Your task to perform on an android device: set default search engine in the chrome app Image 0: 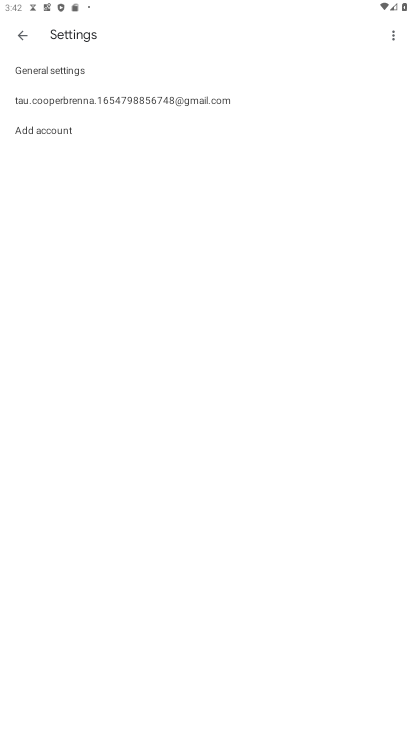
Step 0: press home button
Your task to perform on an android device: set default search engine in the chrome app Image 1: 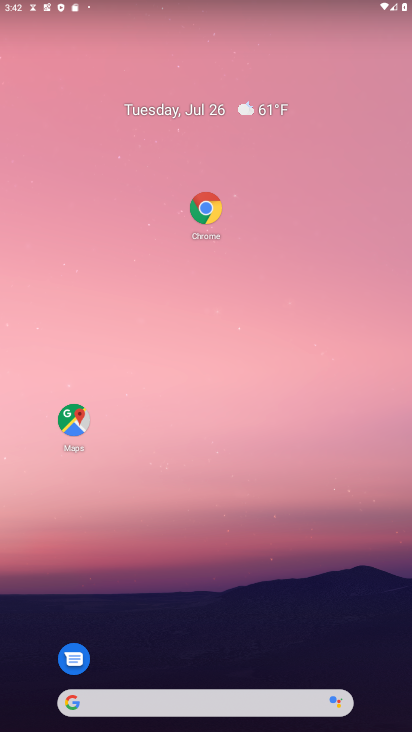
Step 1: click (196, 217)
Your task to perform on an android device: set default search engine in the chrome app Image 2: 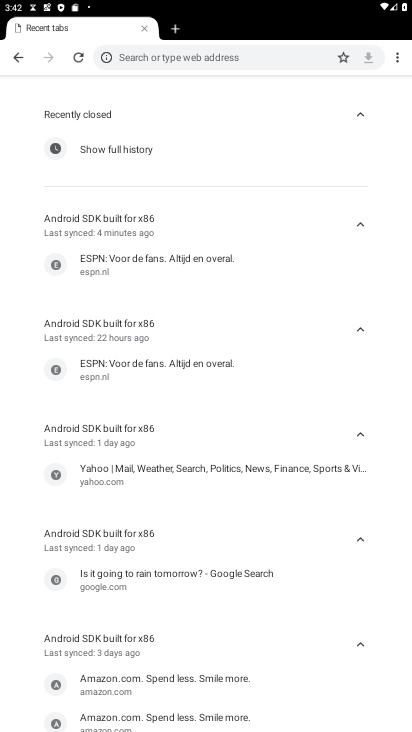
Step 2: click (395, 54)
Your task to perform on an android device: set default search engine in the chrome app Image 3: 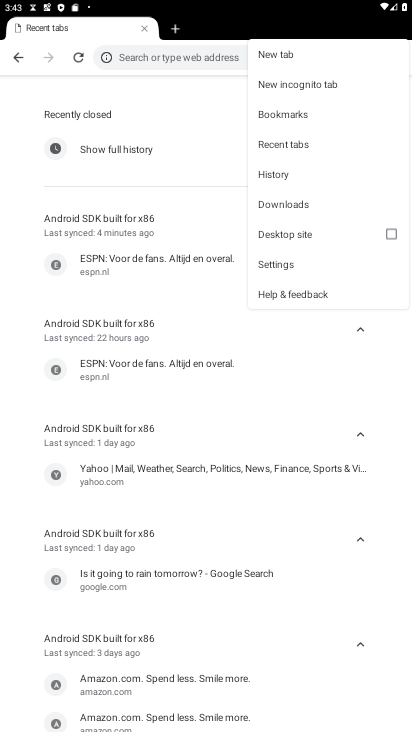
Step 3: click (283, 267)
Your task to perform on an android device: set default search engine in the chrome app Image 4: 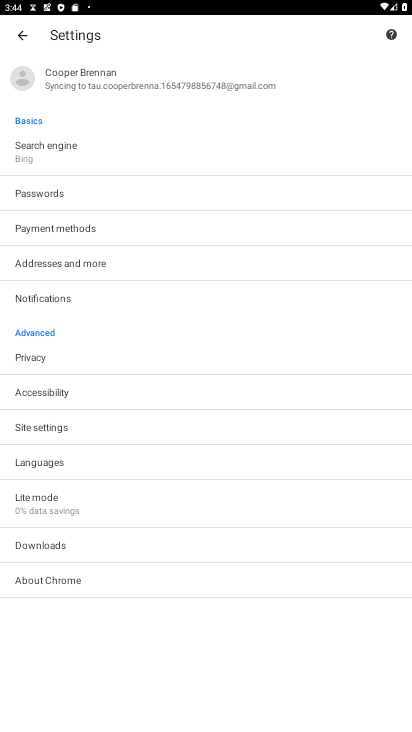
Step 4: click (48, 164)
Your task to perform on an android device: set default search engine in the chrome app Image 5: 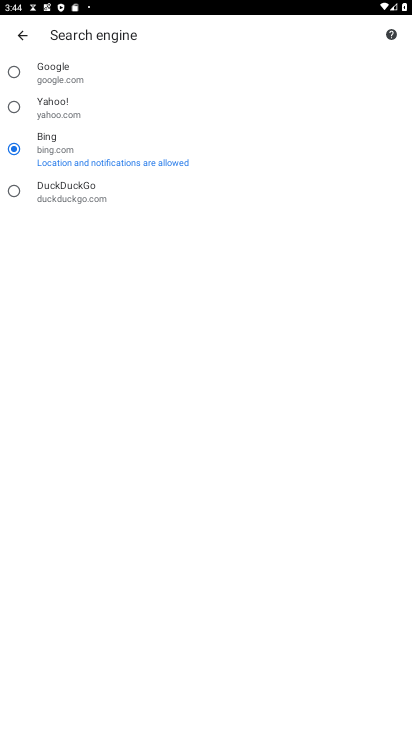
Step 5: click (12, 64)
Your task to perform on an android device: set default search engine in the chrome app Image 6: 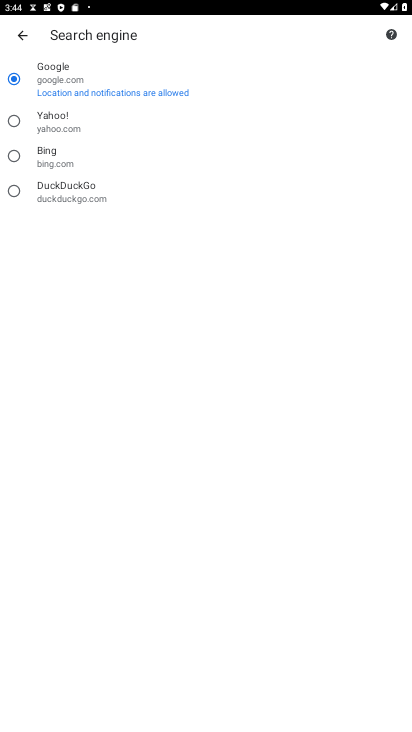
Step 6: task complete